Your task to perform on an android device: Open sound settings Image 0: 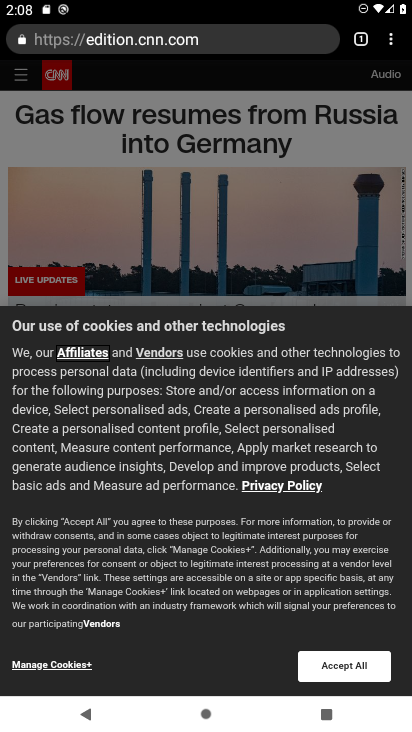
Step 0: press home button
Your task to perform on an android device: Open sound settings Image 1: 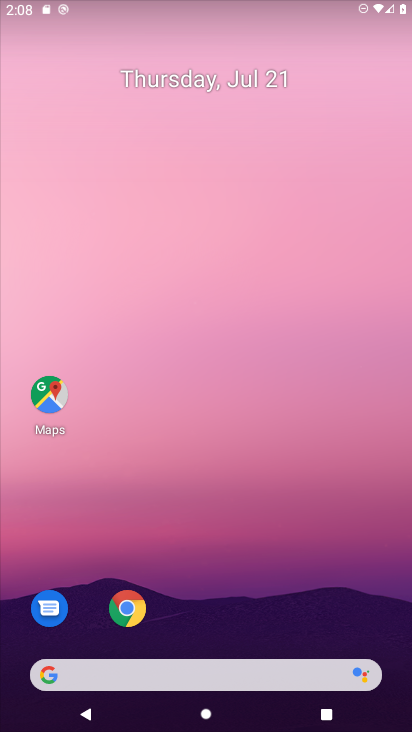
Step 1: drag from (223, 567) to (237, 122)
Your task to perform on an android device: Open sound settings Image 2: 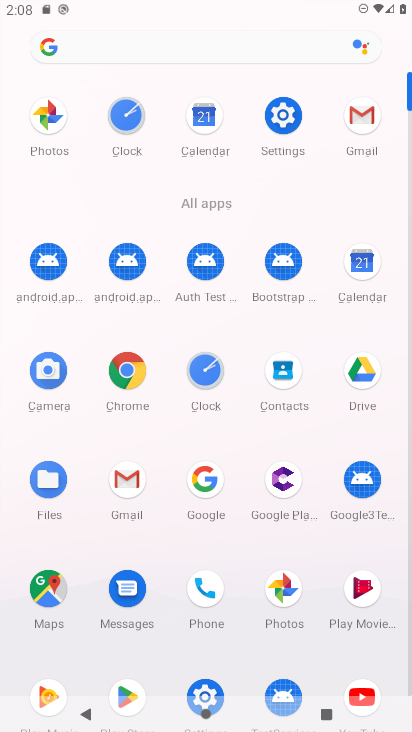
Step 2: click (262, 117)
Your task to perform on an android device: Open sound settings Image 3: 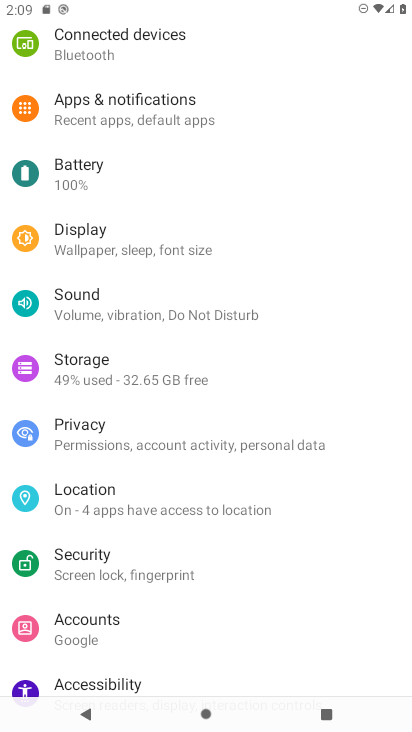
Step 3: click (123, 290)
Your task to perform on an android device: Open sound settings Image 4: 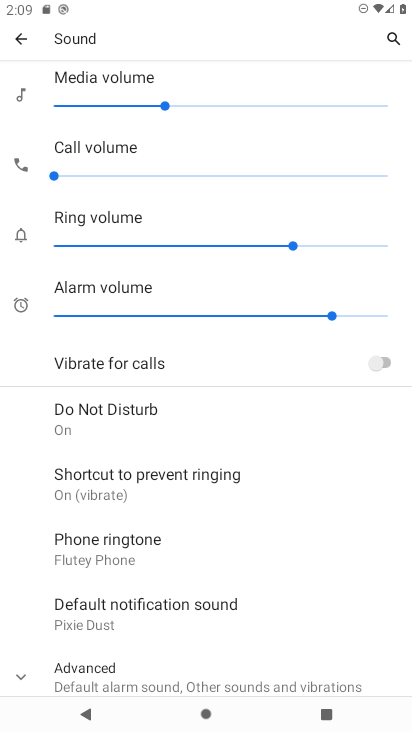
Step 4: task complete